Your task to perform on an android device: allow cookies in the chrome app Image 0: 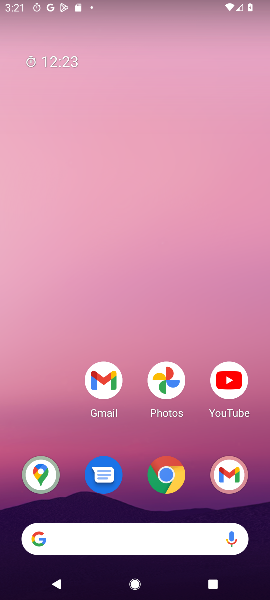
Step 0: press home button
Your task to perform on an android device: allow cookies in the chrome app Image 1: 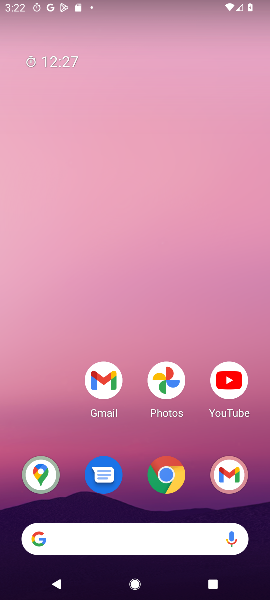
Step 1: drag from (53, 436) to (51, 128)
Your task to perform on an android device: allow cookies in the chrome app Image 2: 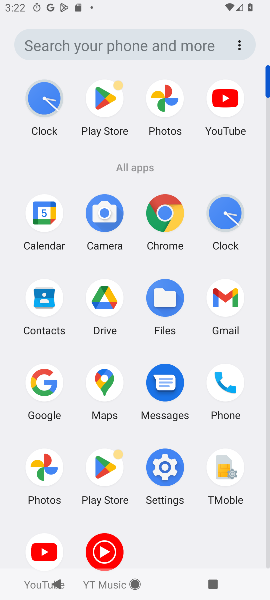
Step 2: click (167, 219)
Your task to perform on an android device: allow cookies in the chrome app Image 3: 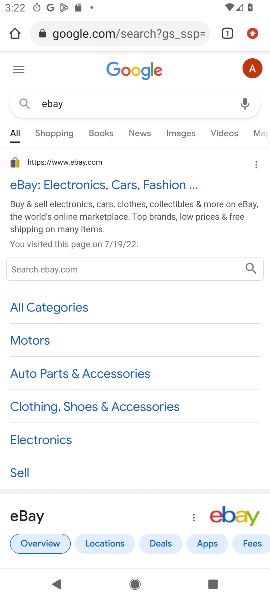
Step 3: click (251, 28)
Your task to perform on an android device: allow cookies in the chrome app Image 4: 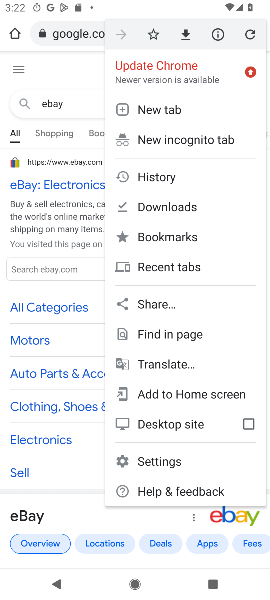
Step 4: click (171, 462)
Your task to perform on an android device: allow cookies in the chrome app Image 5: 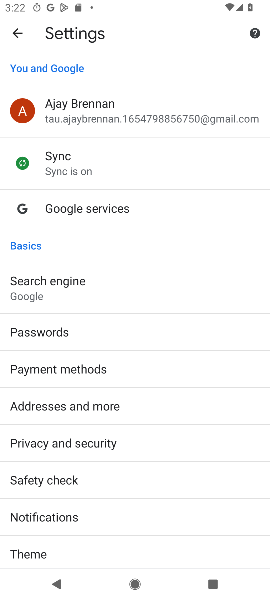
Step 5: drag from (175, 489) to (187, 382)
Your task to perform on an android device: allow cookies in the chrome app Image 6: 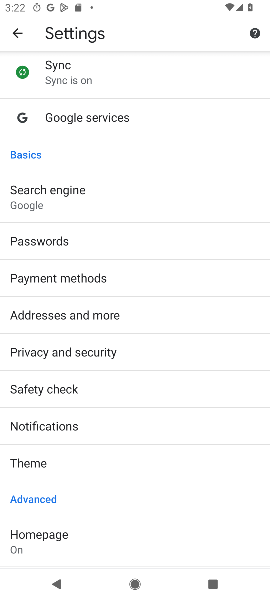
Step 6: drag from (174, 475) to (185, 366)
Your task to perform on an android device: allow cookies in the chrome app Image 7: 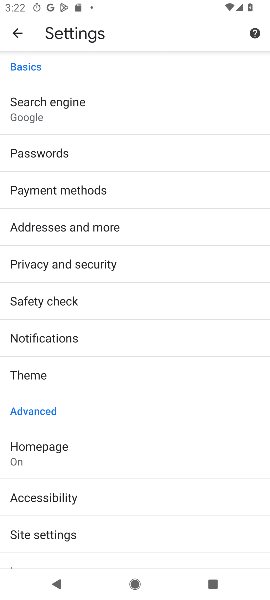
Step 7: drag from (168, 459) to (178, 367)
Your task to perform on an android device: allow cookies in the chrome app Image 8: 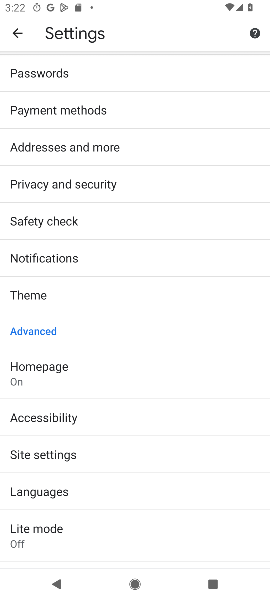
Step 8: drag from (170, 478) to (180, 384)
Your task to perform on an android device: allow cookies in the chrome app Image 9: 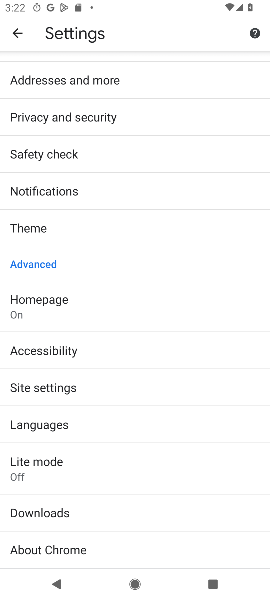
Step 9: click (180, 384)
Your task to perform on an android device: allow cookies in the chrome app Image 10: 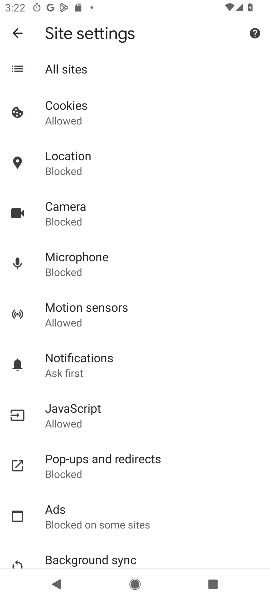
Step 10: click (79, 107)
Your task to perform on an android device: allow cookies in the chrome app Image 11: 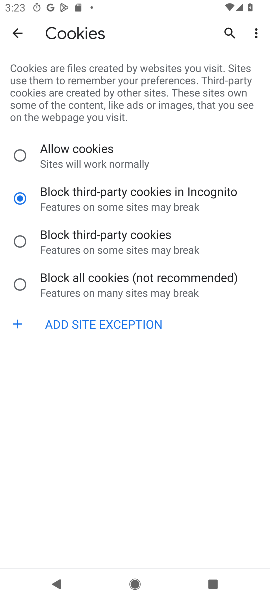
Step 11: click (61, 149)
Your task to perform on an android device: allow cookies in the chrome app Image 12: 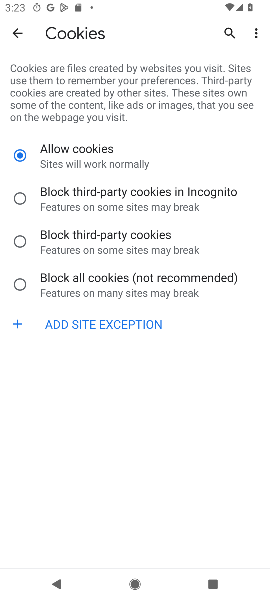
Step 12: task complete